Your task to perform on an android device: manage bookmarks in the chrome app Image 0: 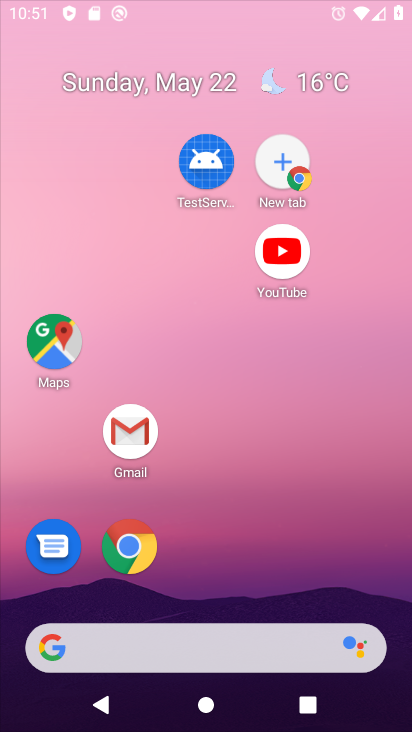
Step 0: drag from (273, 704) to (295, 44)
Your task to perform on an android device: manage bookmarks in the chrome app Image 1: 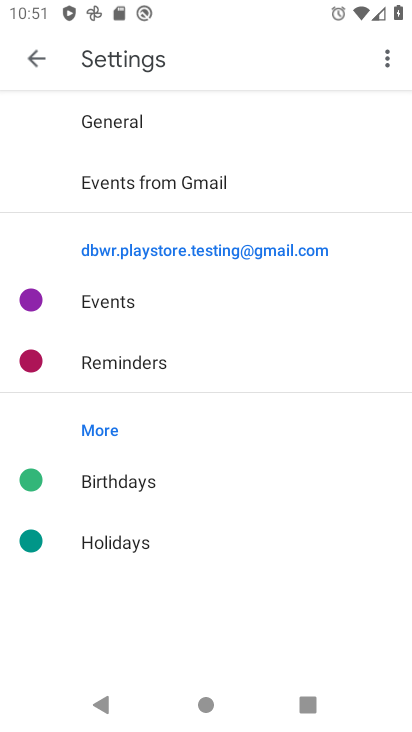
Step 1: click (33, 55)
Your task to perform on an android device: manage bookmarks in the chrome app Image 2: 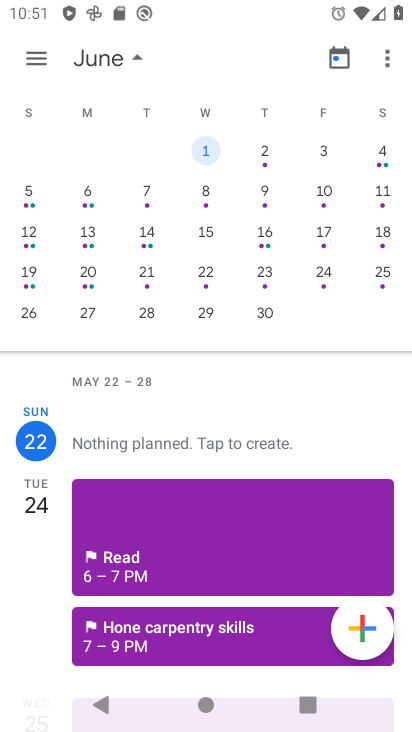
Step 2: press back button
Your task to perform on an android device: manage bookmarks in the chrome app Image 3: 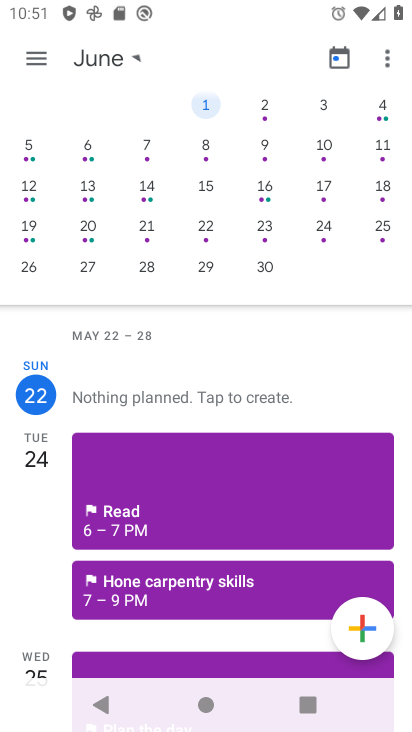
Step 3: press back button
Your task to perform on an android device: manage bookmarks in the chrome app Image 4: 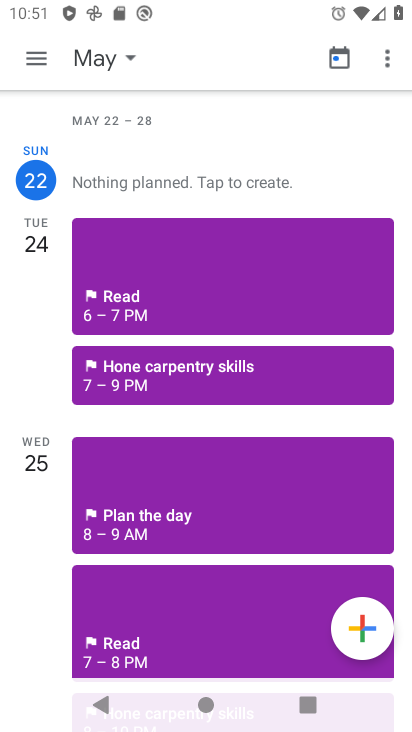
Step 4: press back button
Your task to perform on an android device: manage bookmarks in the chrome app Image 5: 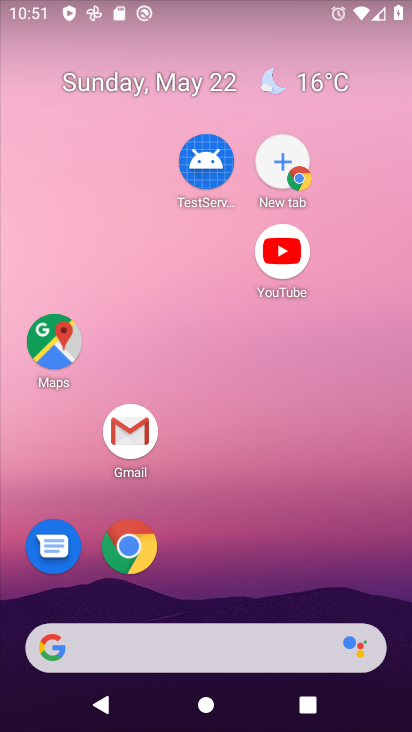
Step 5: drag from (248, 672) to (318, 26)
Your task to perform on an android device: manage bookmarks in the chrome app Image 6: 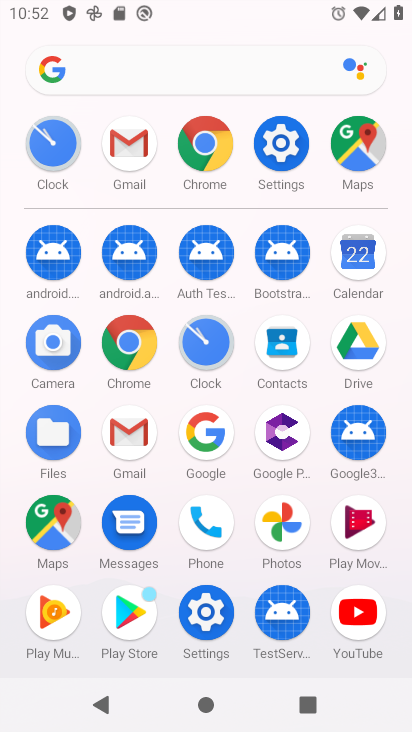
Step 6: click (196, 149)
Your task to perform on an android device: manage bookmarks in the chrome app Image 7: 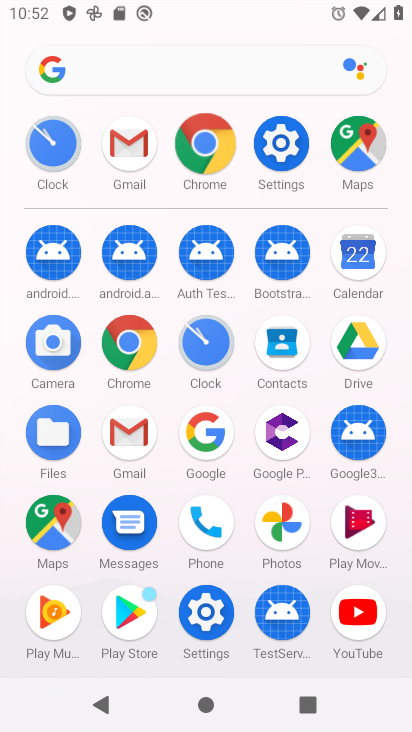
Step 7: click (203, 147)
Your task to perform on an android device: manage bookmarks in the chrome app Image 8: 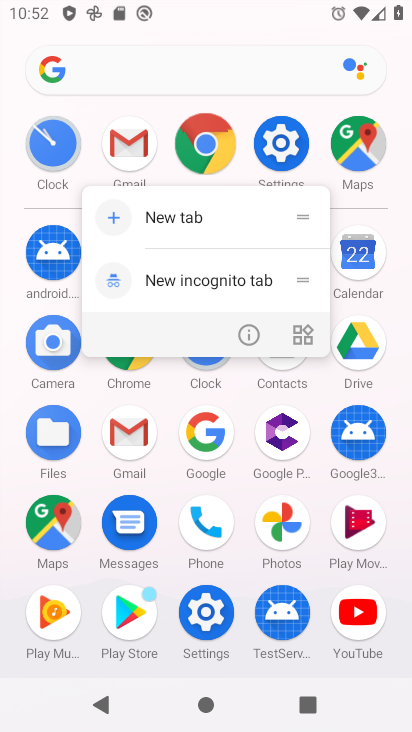
Step 8: click (203, 147)
Your task to perform on an android device: manage bookmarks in the chrome app Image 9: 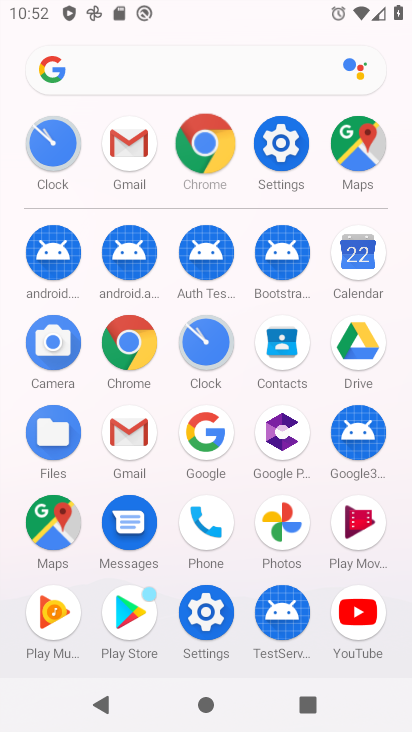
Step 9: click (204, 148)
Your task to perform on an android device: manage bookmarks in the chrome app Image 10: 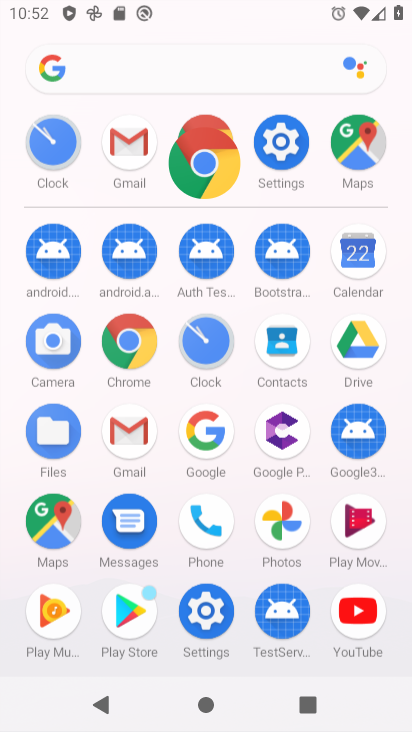
Step 10: click (204, 148)
Your task to perform on an android device: manage bookmarks in the chrome app Image 11: 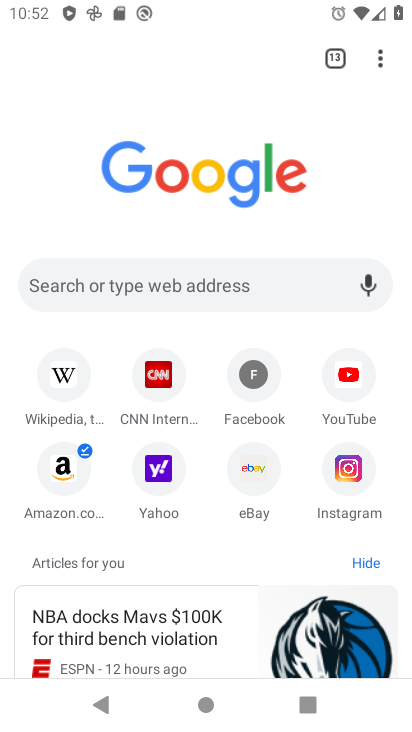
Step 11: drag from (377, 55) to (162, 227)
Your task to perform on an android device: manage bookmarks in the chrome app Image 12: 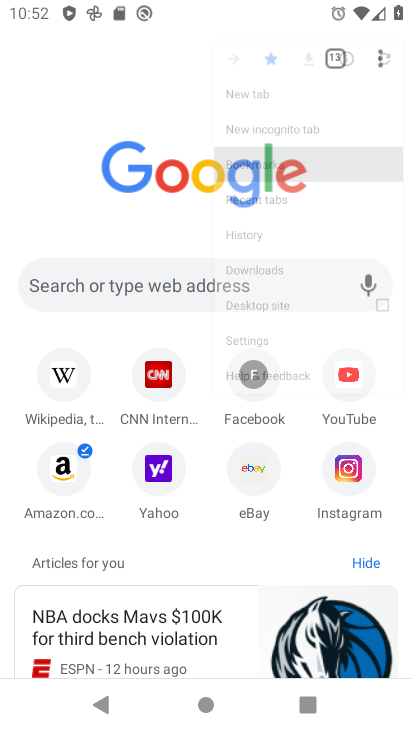
Step 12: click (164, 226)
Your task to perform on an android device: manage bookmarks in the chrome app Image 13: 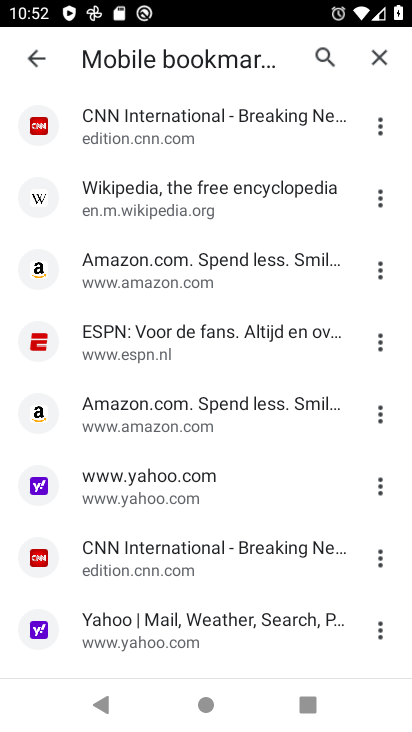
Step 13: click (380, 123)
Your task to perform on an android device: manage bookmarks in the chrome app Image 14: 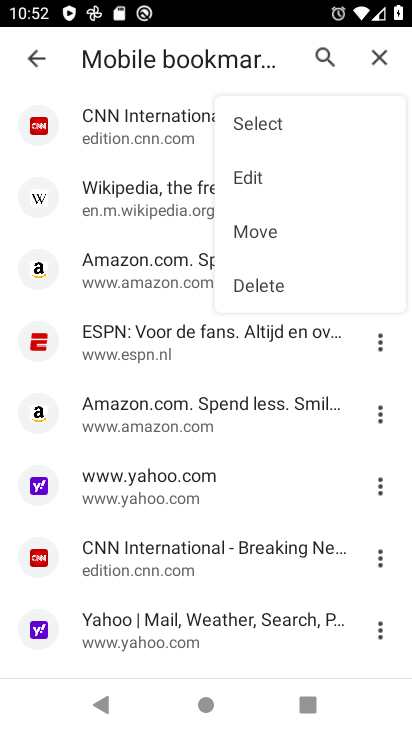
Step 14: click (262, 288)
Your task to perform on an android device: manage bookmarks in the chrome app Image 15: 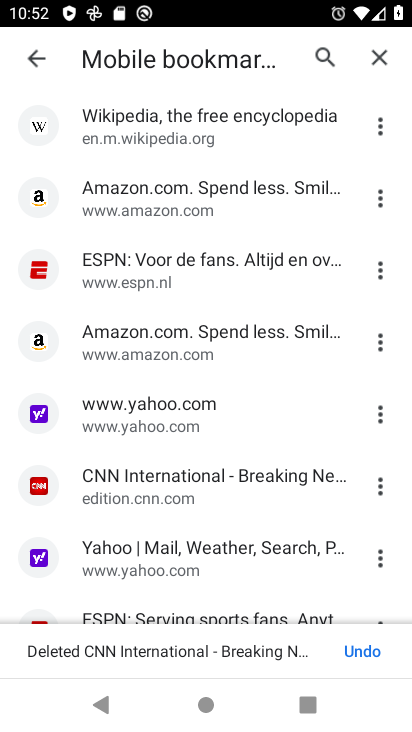
Step 15: task complete